Your task to perform on an android device: set an alarm Image 0: 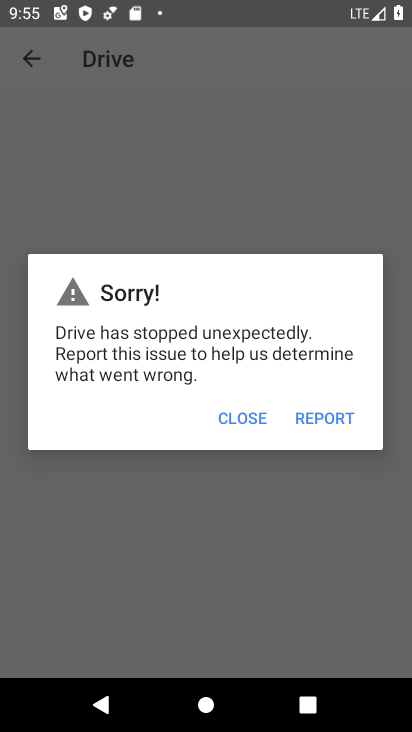
Step 0: press home button
Your task to perform on an android device: set an alarm Image 1: 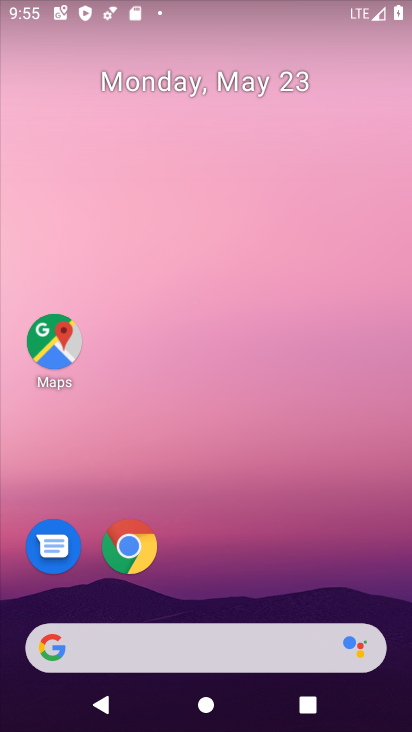
Step 1: drag from (382, 607) to (338, 143)
Your task to perform on an android device: set an alarm Image 2: 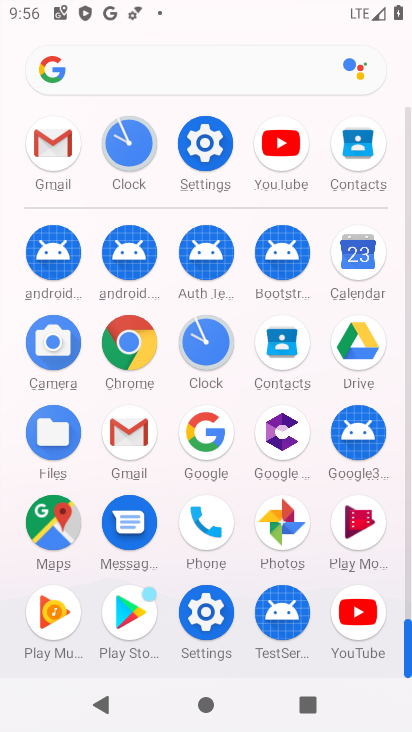
Step 2: click (203, 341)
Your task to perform on an android device: set an alarm Image 3: 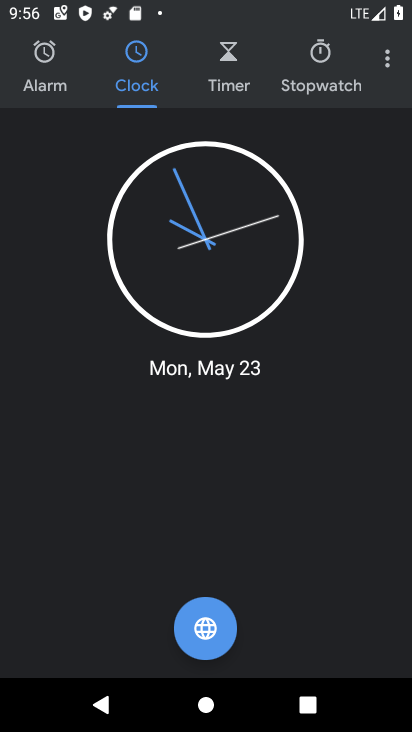
Step 3: click (38, 67)
Your task to perform on an android device: set an alarm Image 4: 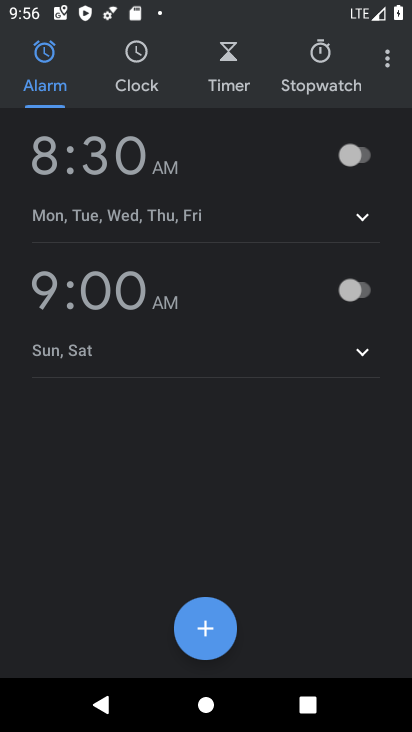
Step 4: click (98, 165)
Your task to perform on an android device: set an alarm Image 5: 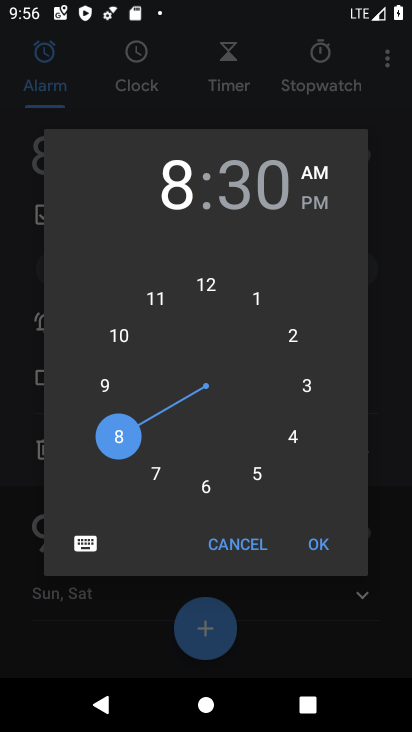
Step 5: click (207, 489)
Your task to perform on an android device: set an alarm Image 6: 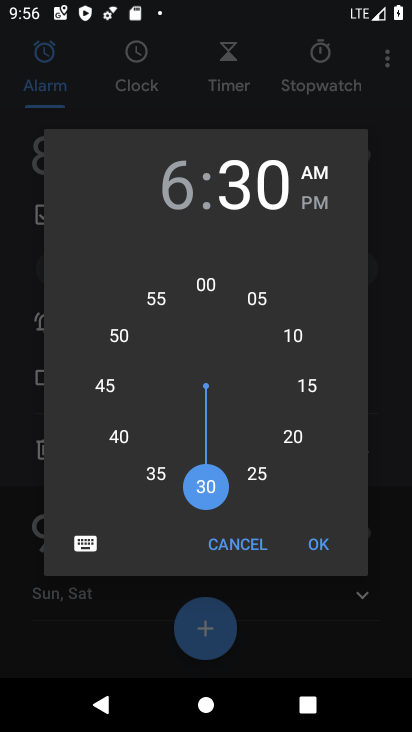
Step 6: click (313, 383)
Your task to perform on an android device: set an alarm Image 7: 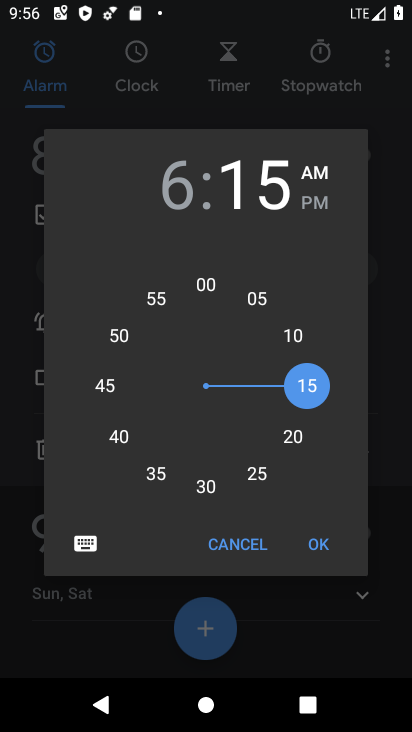
Step 7: click (319, 550)
Your task to perform on an android device: set an alarm Image 8: 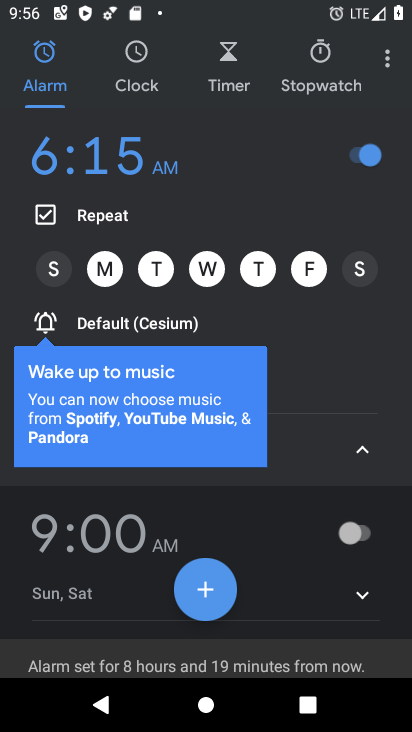
Step 8: click (352, 271)
Your task to perform on an android device: set an alarm Image 9: 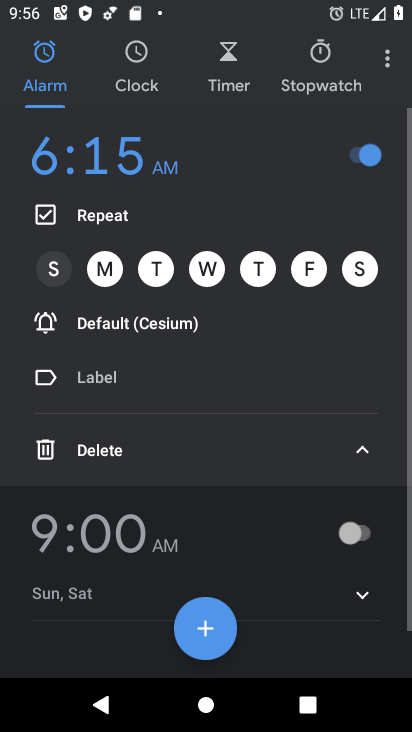
Step 9: click (360, 453)
Your task to perform on an android device: set an alarm Image 10: 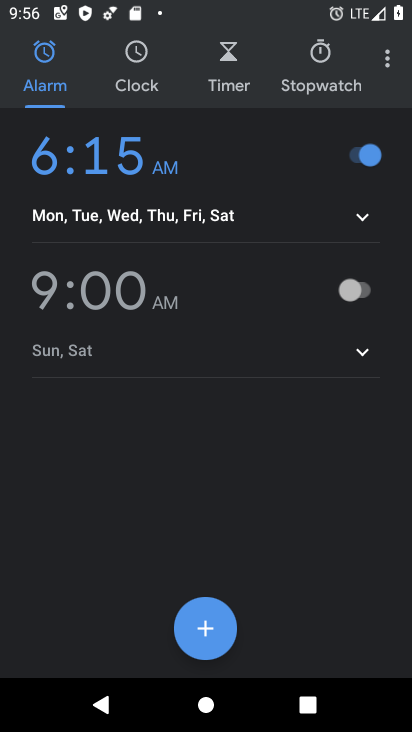
Step 10: task complete